Your task to perform on an android device: Go to Yahoo.com Image 0: 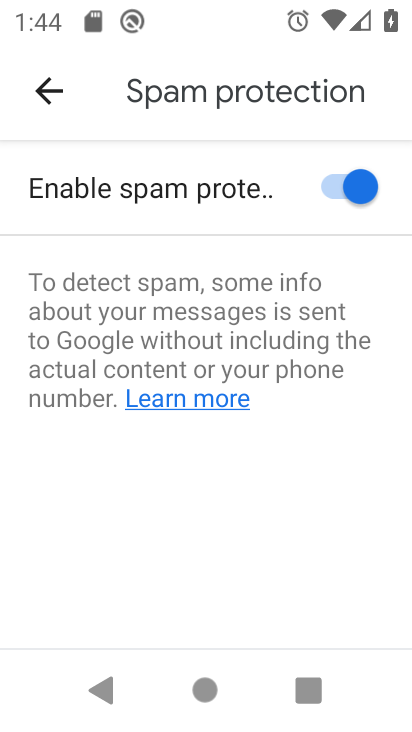
Step 0: press home button
Your task to perform on an android device: Go to Yahoo.com Image 1: 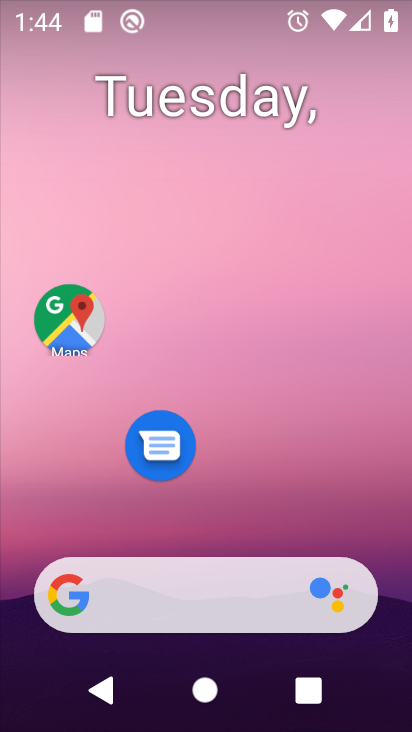
Step 1: drag from (292, 495) to (209, 125)
Your task to perform on an android device: Go to Yahoo.com Image 2: 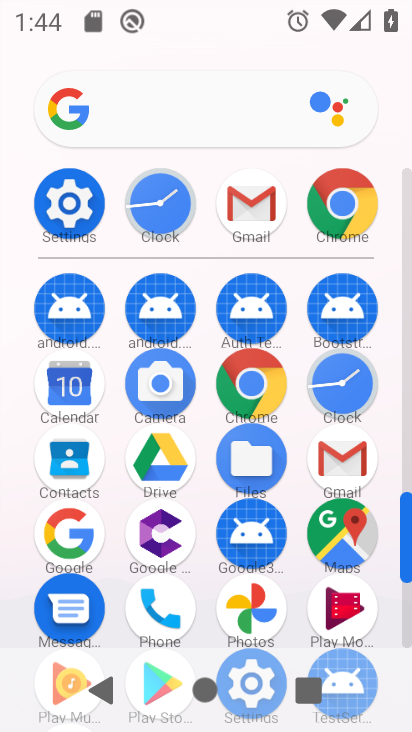
Step 2: click (346, 201)
Your task to perform on an android device: Go to Yahoo.com Image 3: 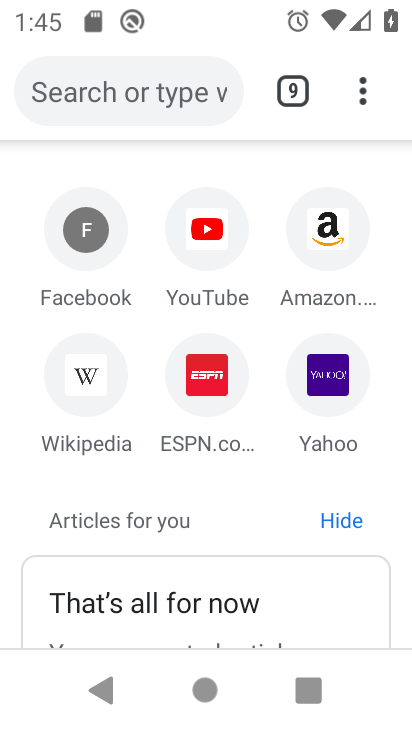
Step 3: click (172, 89)
Your task to perform on an android device: Go to Yahoo.com Image 4: 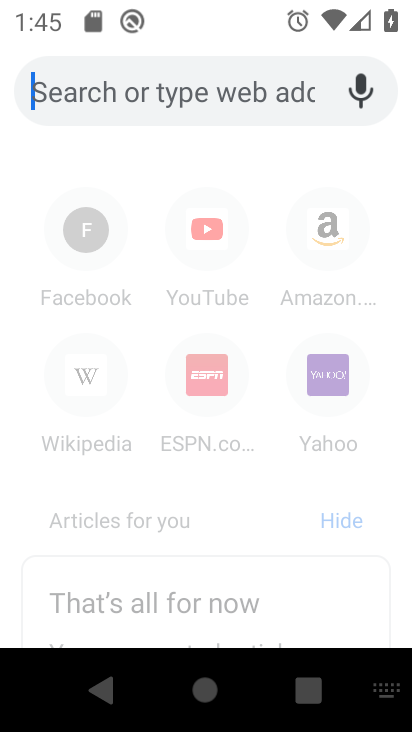
Step 4: type "yahoo.com"
Your task to perform on an android device: Go to Yahoo.com Image 5: 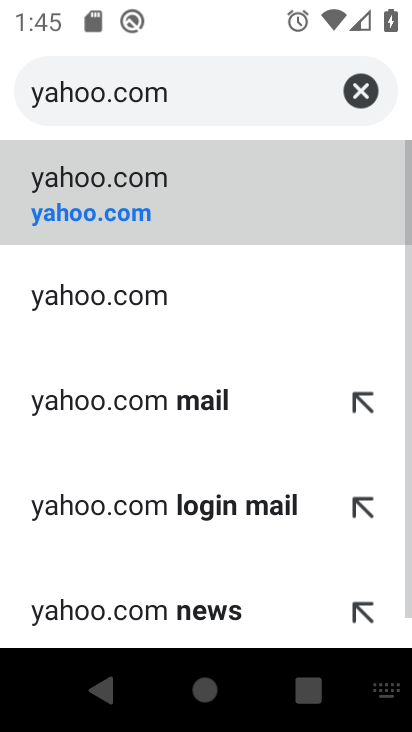
Step 5: click (76, 192)
Your task to perform on an android device: Go to Yahoo.com Image 6: 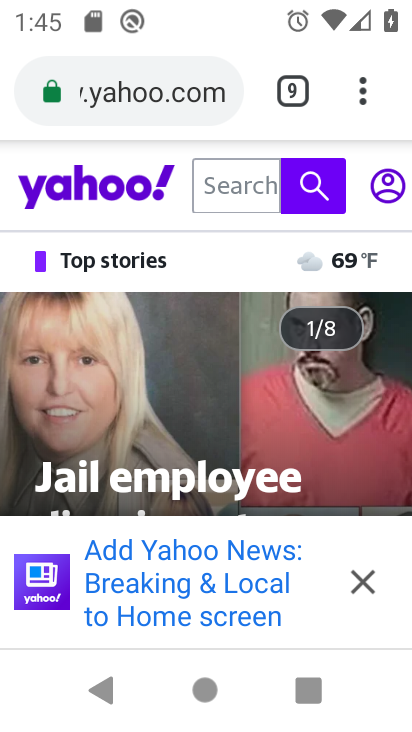
Step 6: task complete